Your task to perform on an android device: Open the web browser Image 0: 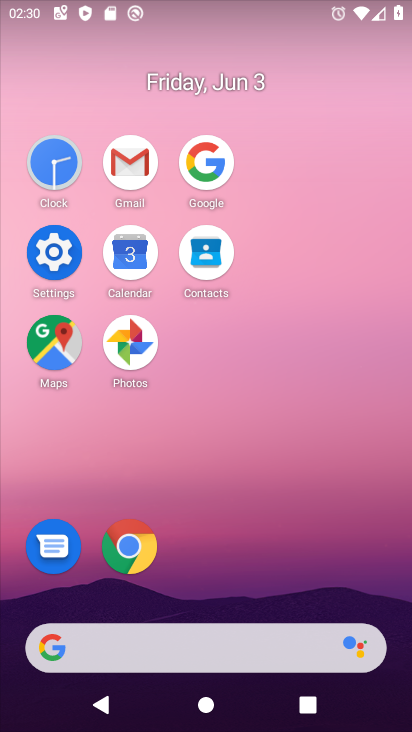
Step 0: click (131, 546)
Your task to perform on an android device: Open the web browser Image 1: 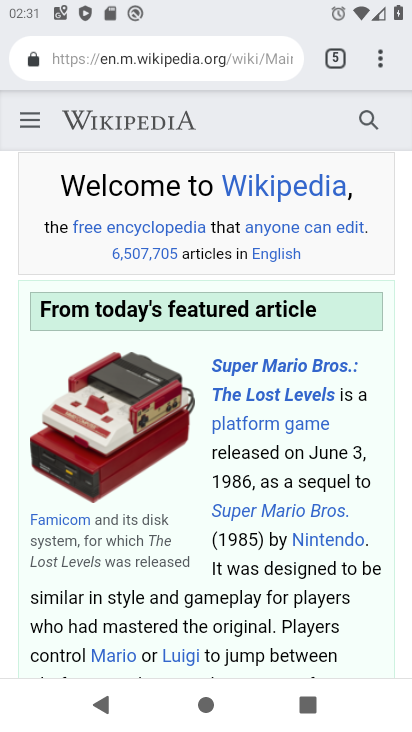
Step 1: task complete